Your task to perform on an android device: turn off priority inbox in the gmail app Image 0: 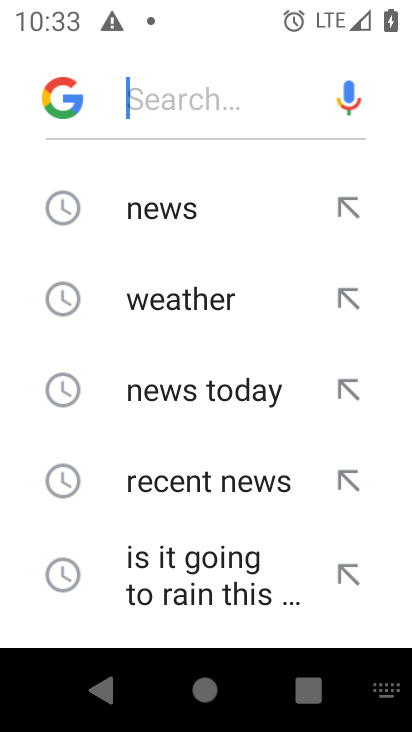
Step 0: press home button
Your task to perform on an android device: turn off priority inbox in the gmail app Image 1: 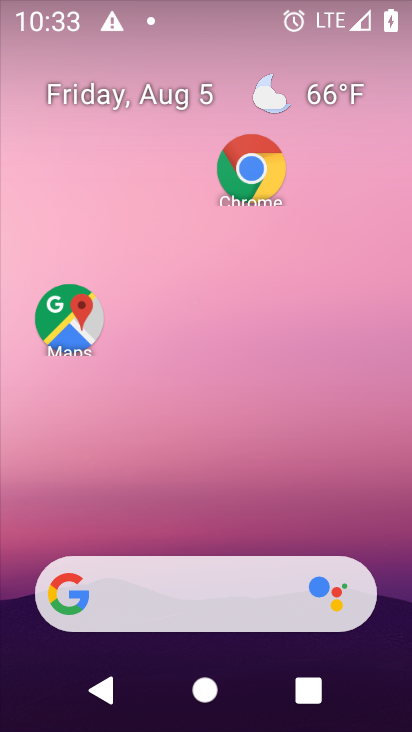
Step 1: drag from (178, 531) to (185, 171)
Your task to perform on an android device: turn off priority inbox in the gmail app Image 2: 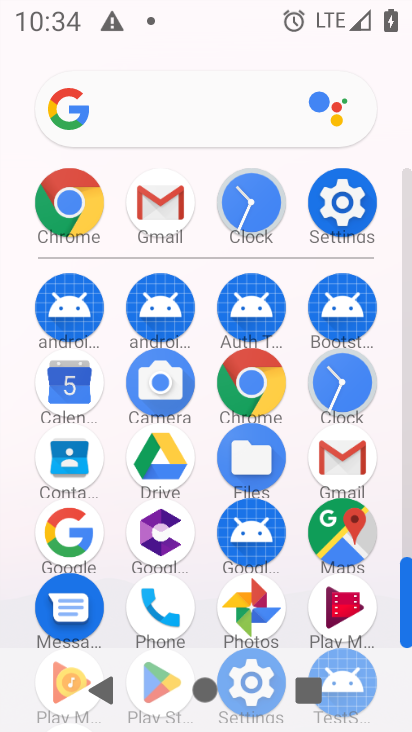
Step 2: click (161, 199)
Your task to perform on an android device: turn off priority inbox in the gmail app Image 3: 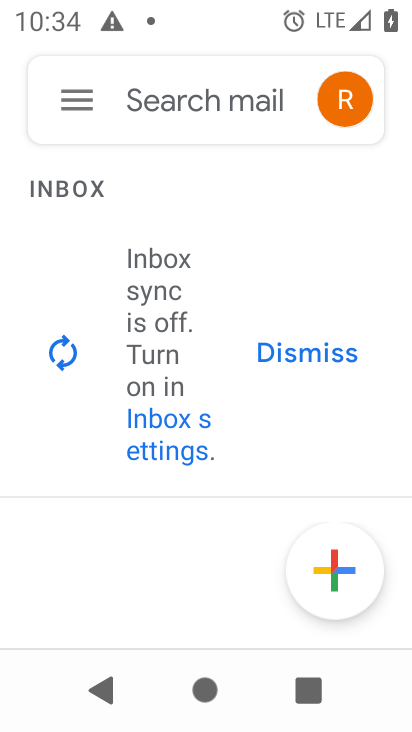
Step 3: click (75, 109)
Your task to perform on an android device: turn off priority inbox in the gmail app Image 4: 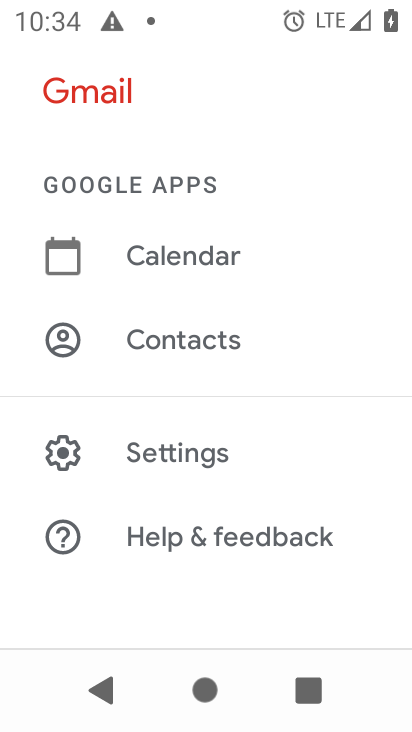
Step 4: click (178, 466)
Your task to perform on an android device: turn off priority inbox in the gmail app Image 5: 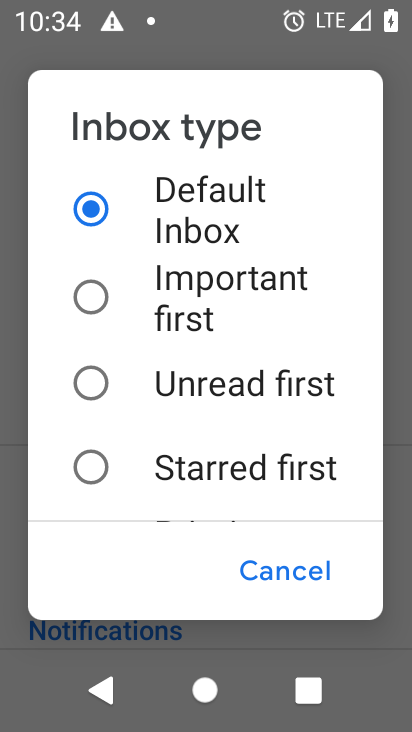
Step 5: task complete